Your task to perform on an android device: Open CNN.com Image 0: 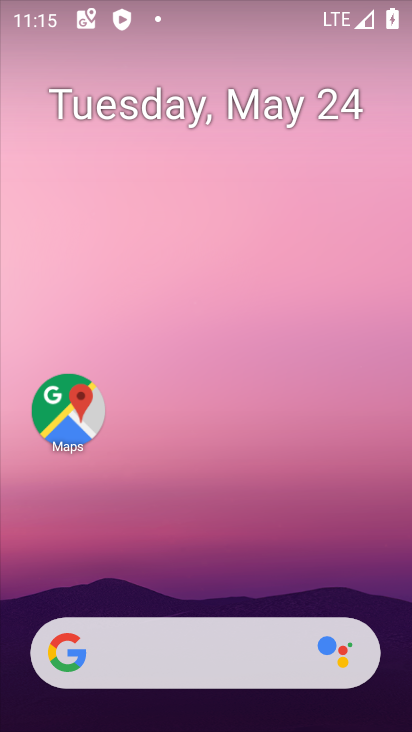
Step 0: drag from (208, 679) to (200, 349)
Your task to perform on an android device: Open CNN.com Image 1: 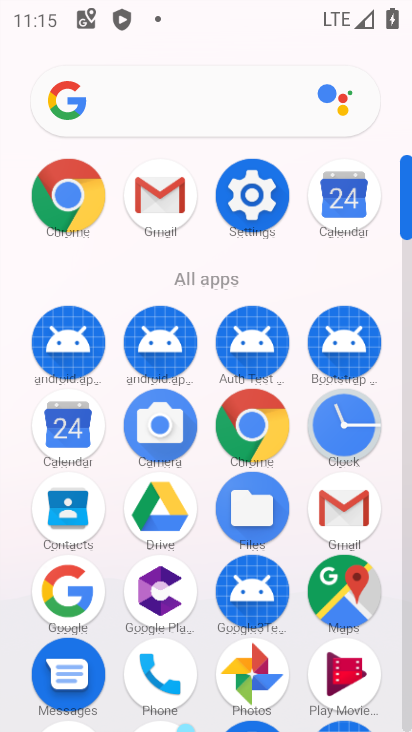
Step 1: click (50, 207)
Your task to perform on an android device: Open CNN.com Image 2: 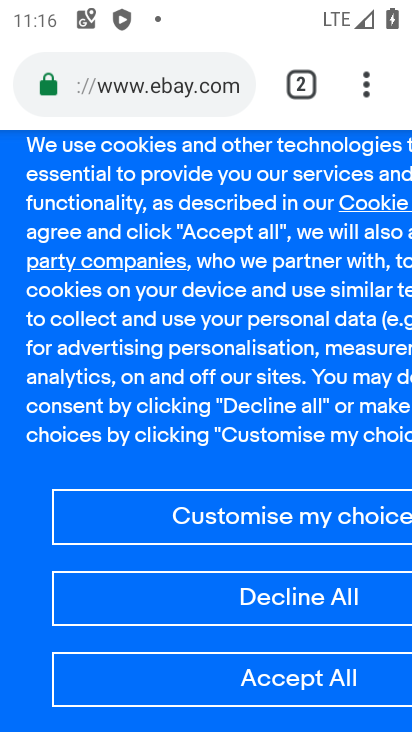
Step 2: click (152, 90)
Your task to perform on an android device: Open CNN.com Image 3: 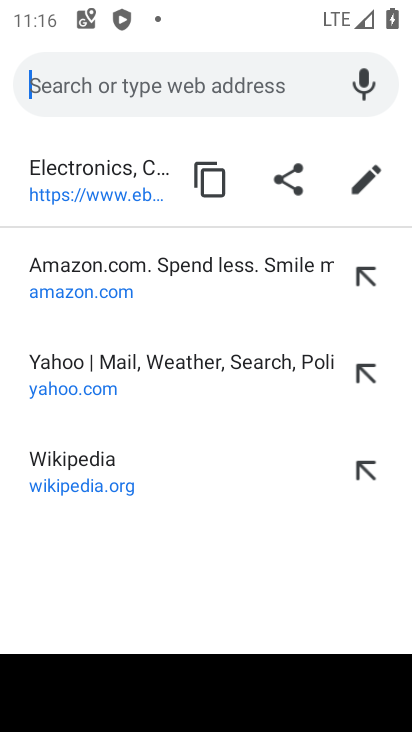
Step 3: type "cnn.com"
Your task to perform on an android device: Open CNN.com Image 4: 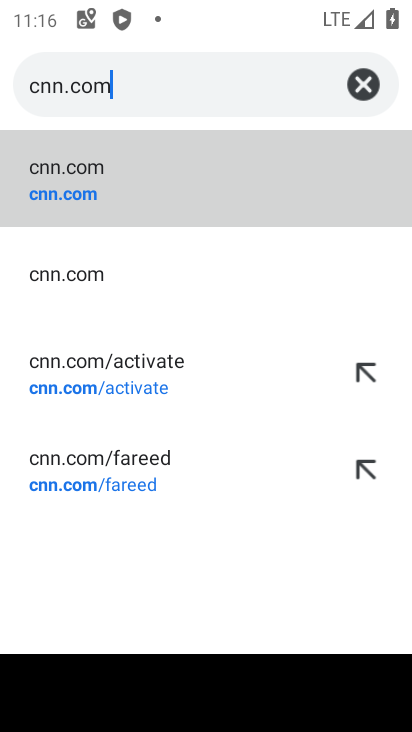
Step 4: click (161, 197)
Your task to perform on an android device: Open CNN.com Image 5: 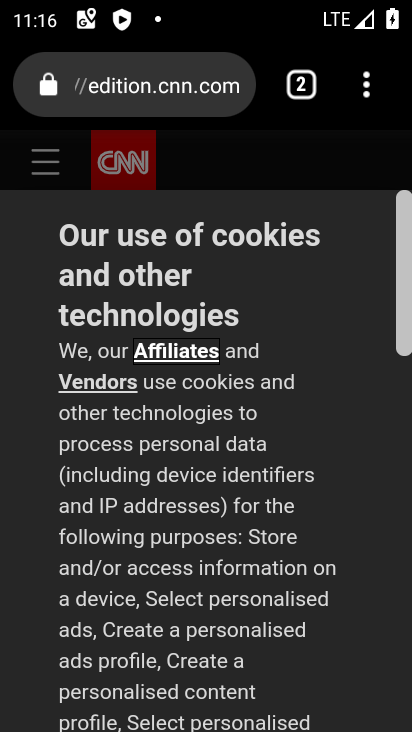
Step 5: task complete